Your task to perform on an android device: Turn off the flashlight Image 0: 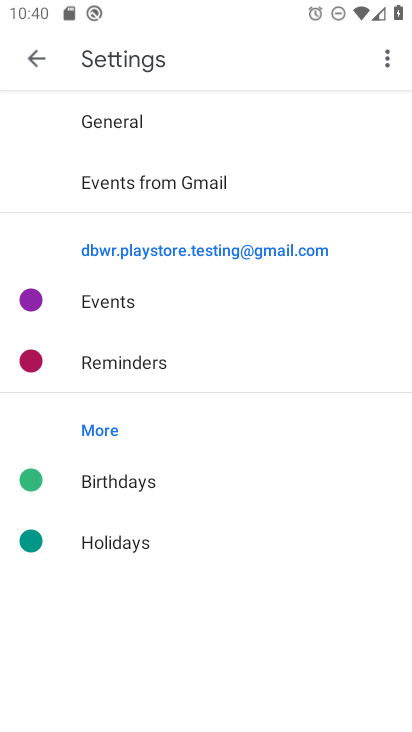
Step 0: press home button
Your task to perform on an android device: Turn off the flashlight Image 1: 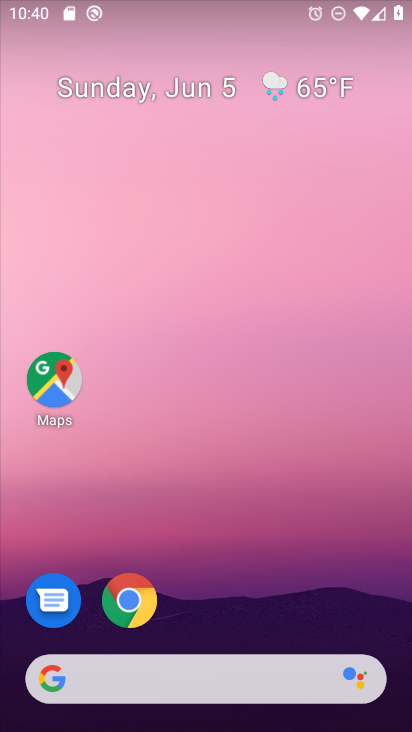
Step 1: drag from (383, 640) to (306, 0)
Your task to perform on an android device: Turn off the flashlight Image 2: 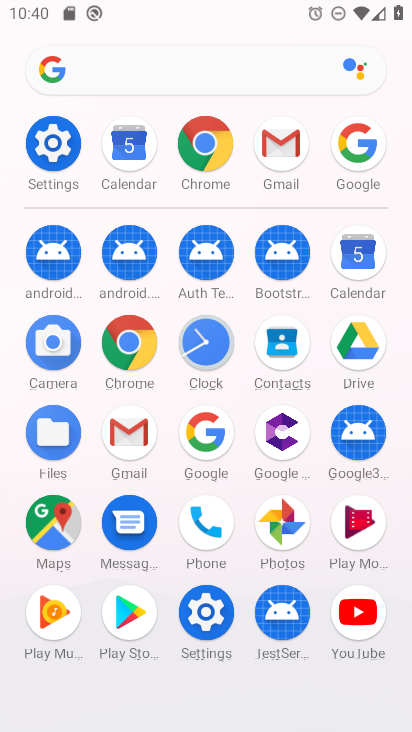
Step 2: click (44, 147)
Your task to perform on an android device: Turn off the flashlight Image 3: 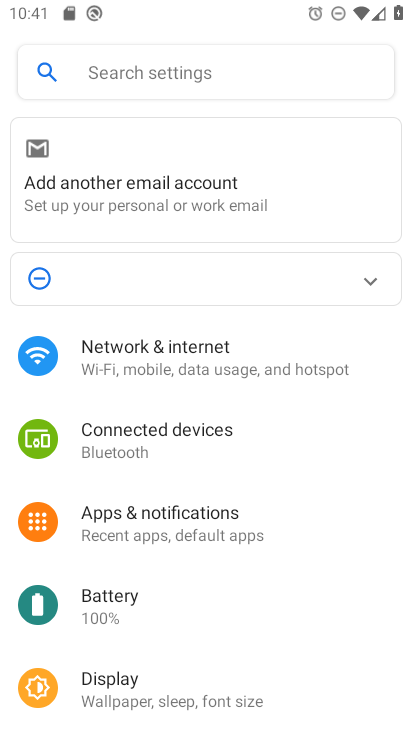
Step 3: task complete